Your task to perform on an android device: Show me the alarms in the clock app Image 0: 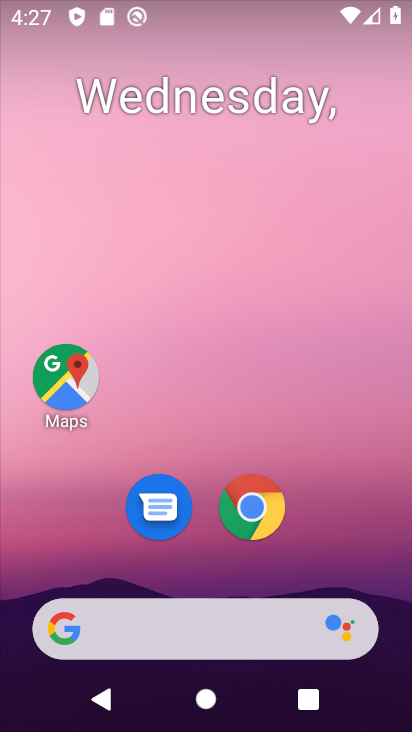
Step 0: drag from (395, 503) to (358, 91)
Your task to perform on an android device: Show me the alarms in the clock app Image 1: 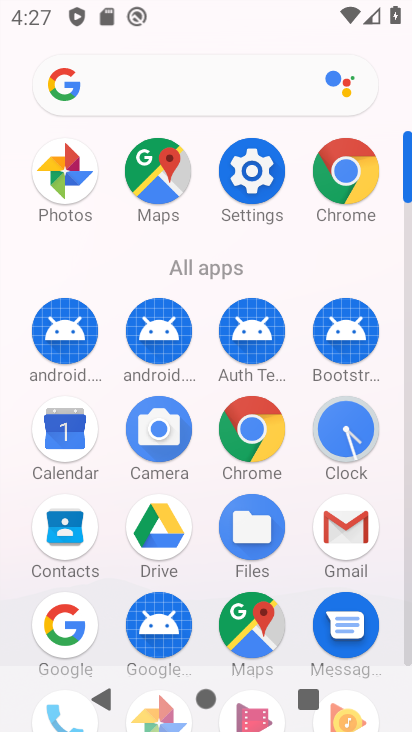
Step 1: click (351, 418)
Your task to perform on an android device: Show me the alarms in the clock app Image 2: 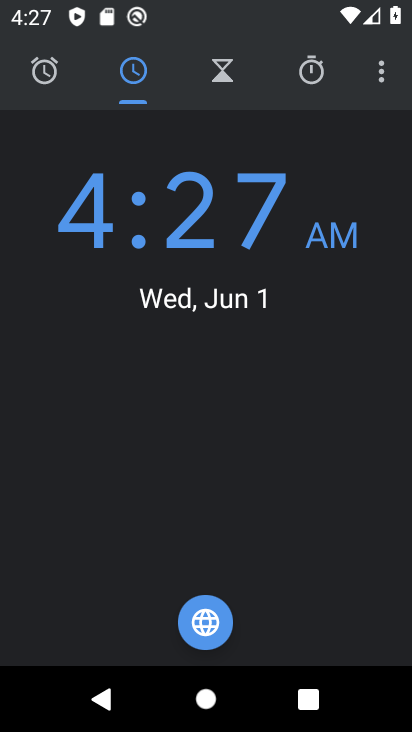
Step 2: click (65, 84)
Your task to perform on an android device: Show me the alarms in the clock app Image 3: 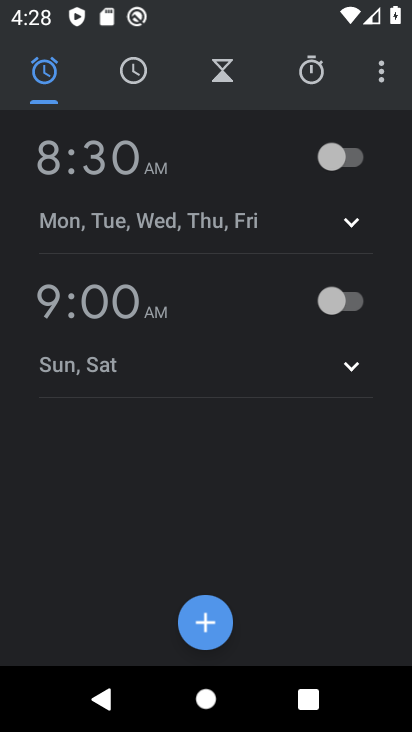
Step 3: click (109, 188)
Your task to perform on an android device: Show me the alarms in the clock app Image 4: 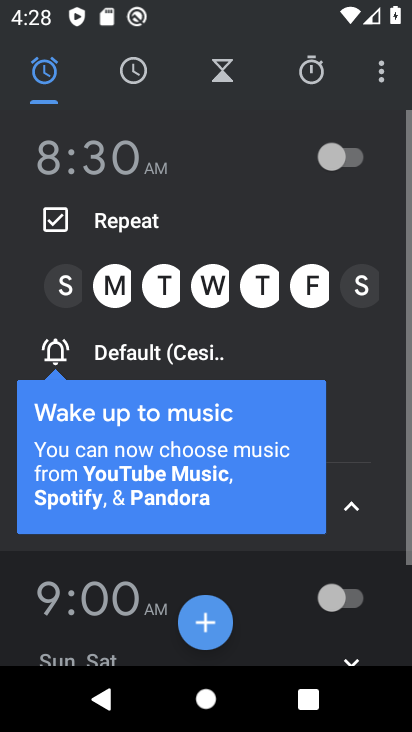
Step 4: task complete